Your task to perform on an android device: turn off smart reply in the gmail app Image 0: 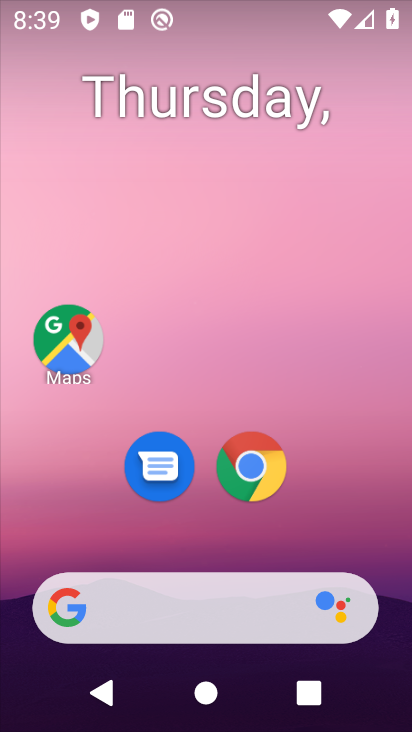
Step 0: drag from (192, 615) to (317, 165)
Your task to perform on an android device: turn off smart reply in the gmail app Image 1: 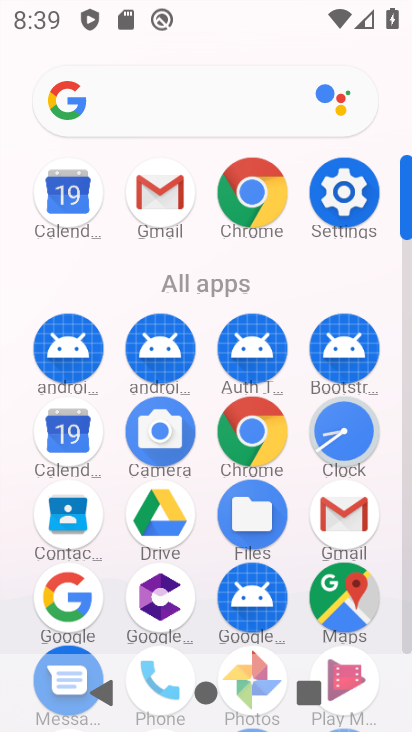
Step 1: click (166, 199)
Your task to perform on an android device: turn off smart reply in the gmail app Image 2: 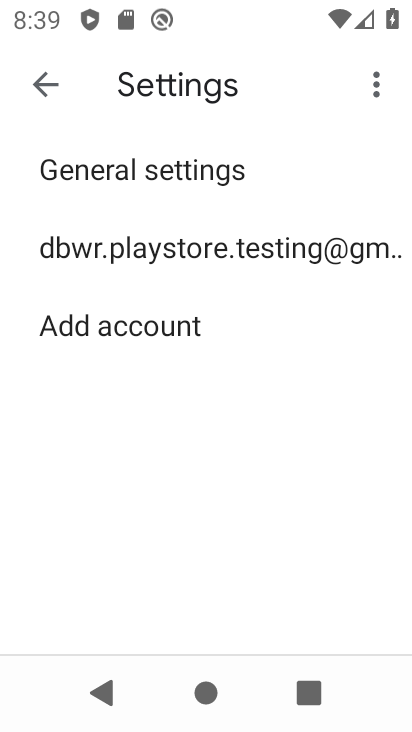
Step 2: click (157, 251)
Your task to perform on an android device: turn off smart reply in the gmail app Image 3: 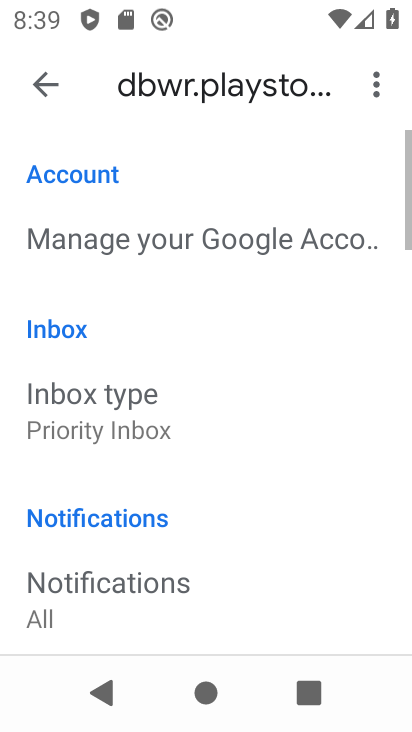
Step 3: drag from (214, 582) to (363, 109)
Your task to perform on an android device: turn off smart reply in the gmail app Image 4: 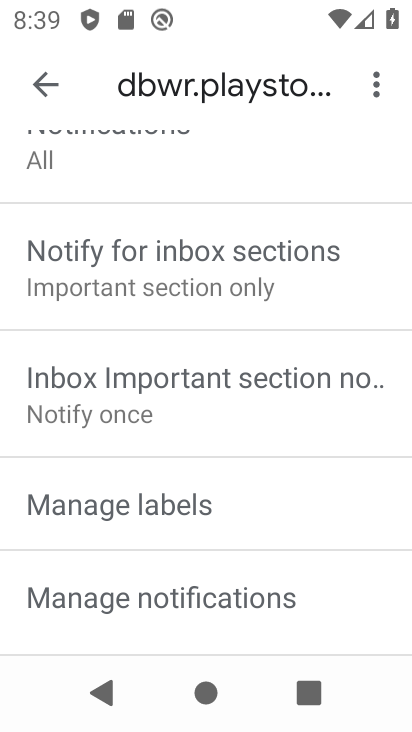
Step 4: drag from (264, 561) to (387, 80)
Your task to perform on an android device: turn off smart reply in the gmail app Image 5: 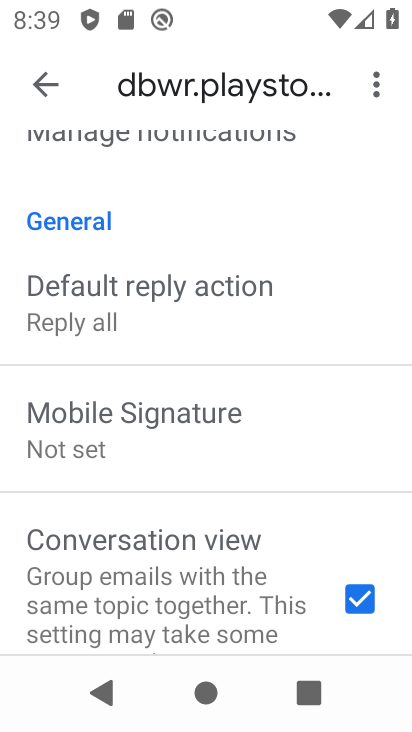
Step 5: drag from (271, 503) to (399, 141)
Your task to perform on an android device: turn off smart reply in the gmail app Image 6: 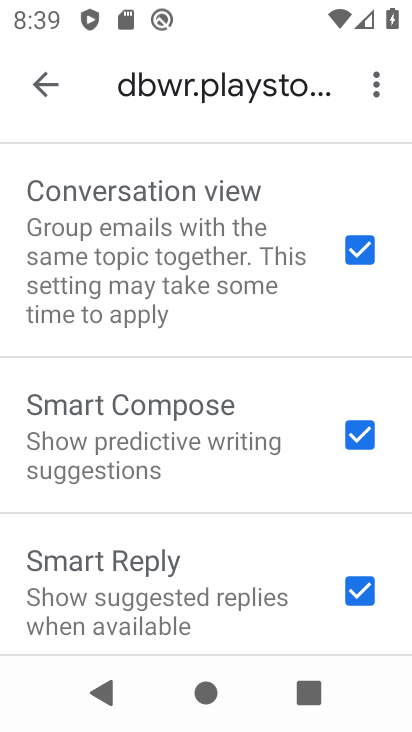
Step 6: click (358, 588)
Your task to perform on an android device: turn off smart reply in the gmail app Image 7: 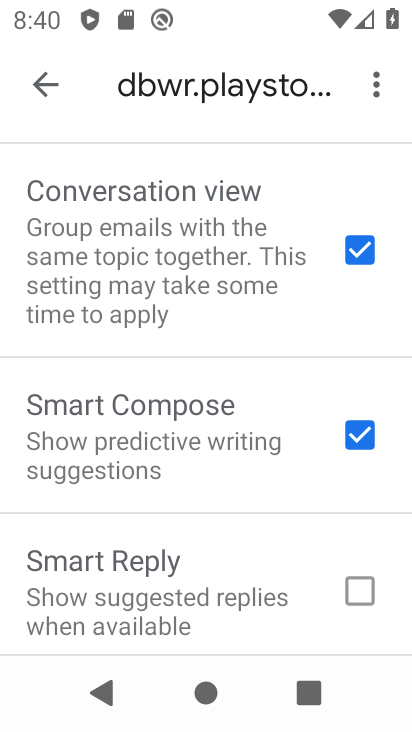
Step 7: task complete